Your task to perform on an android device: open app "Adobe Acrobat Reader" (install if not already installed), go to login, and select forgot password Image 0: 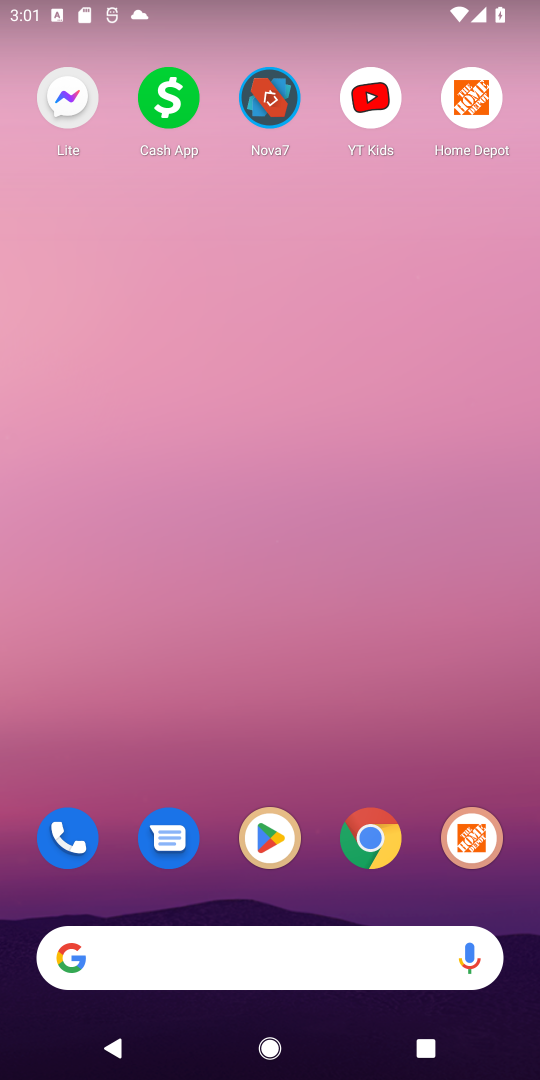
Step 0: click (255, 834)
Your task to perform on an android device: open app "Adobe Acrobat Reader" (install if not already installed), go to login, and select forgot password Image 1: 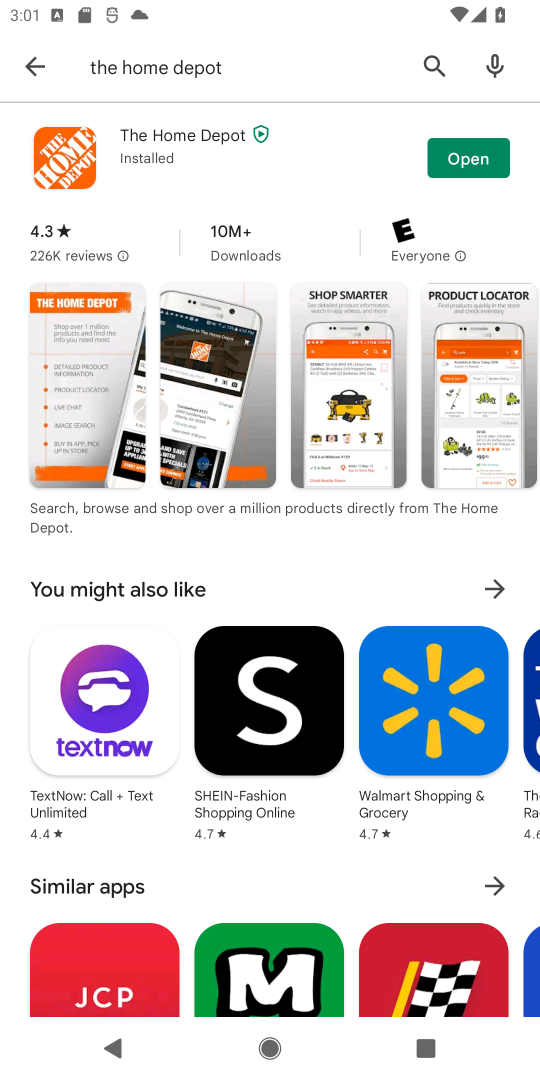
Step 1: click (420, 67)
Your task to perform on an android device: open app "Adobe Acrobat Reader" (install if not already installed), go to login, and select forgot password Image 2: 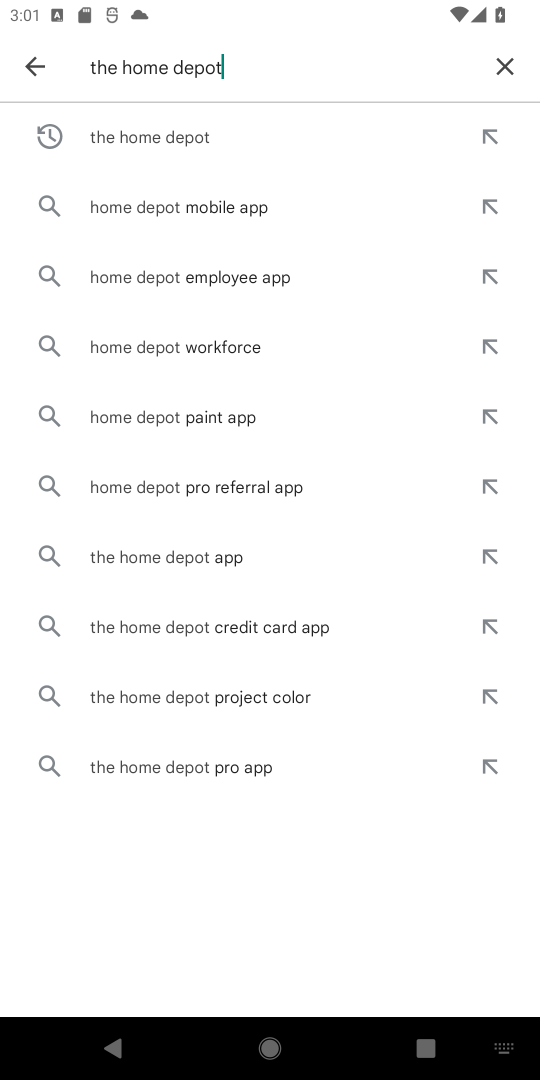
Step 2: click (494, 58)
Your task to perform on an android device: open app "Adobe Acrobat Reader" (install if not already installed), go to login, and select forgot password Image 3: 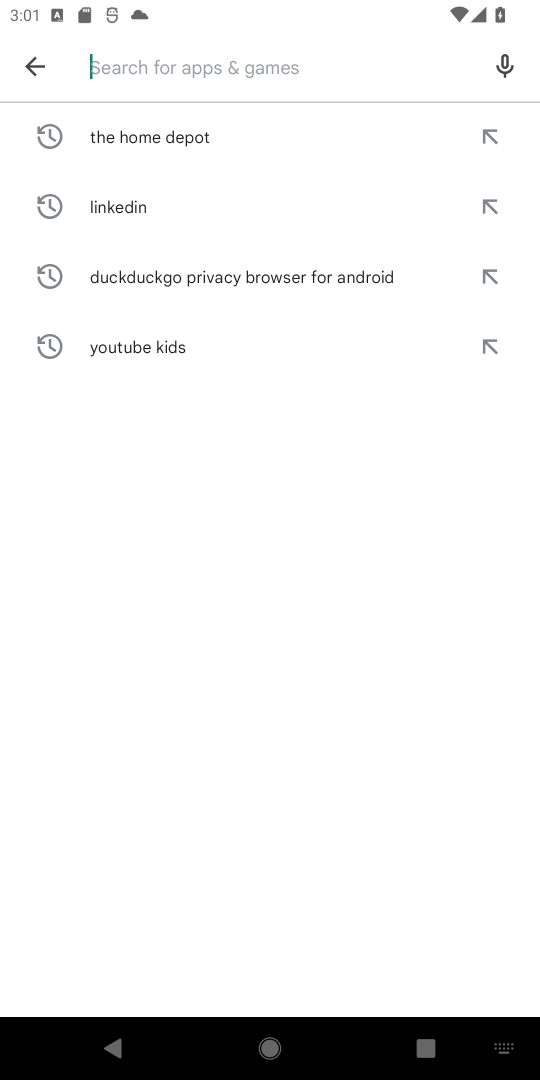
Step 3: type "Adobe Acrobat Reader"
Your task to perform on an android device: open app "Adobe Acrobat Reader" (install if not already installed), go to login, and select forgot password Image 4: 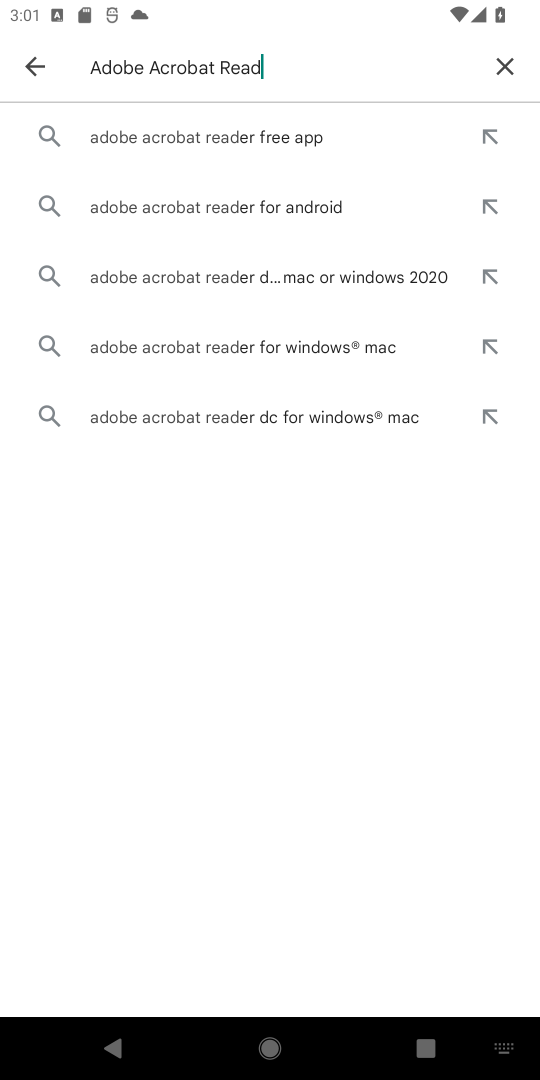
Step 4: type ""
Your task to perform on an android device: open app "Adobe Acrobat Reader" (install if not already installed), go to login, and select forgot password Image 5: 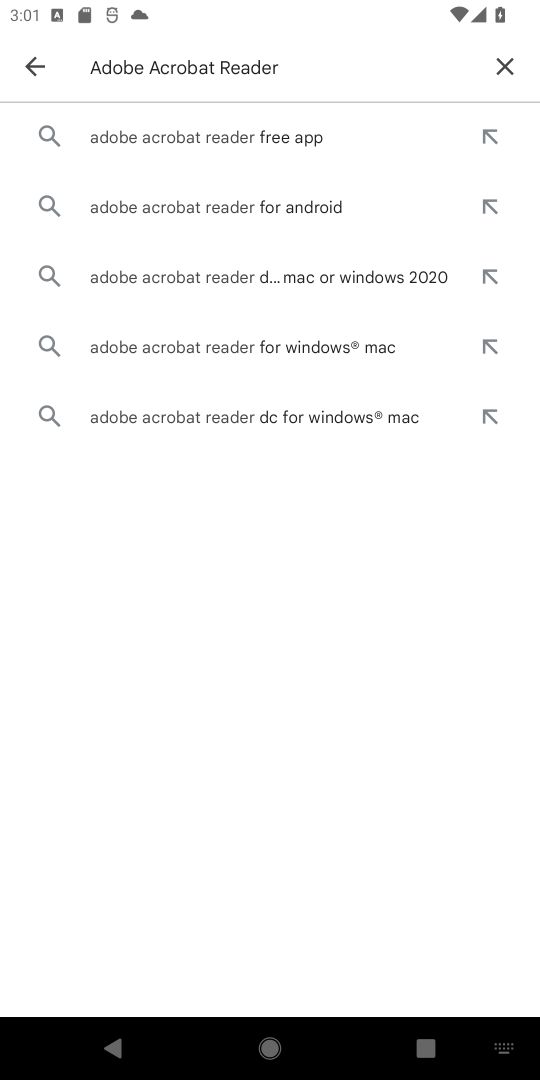
Step 5: click (231, 149)
Your task to perform on an android device: open app "Adobe Acrobat Reader" (install if not already installed), go to login, and select forgot password Image 6: 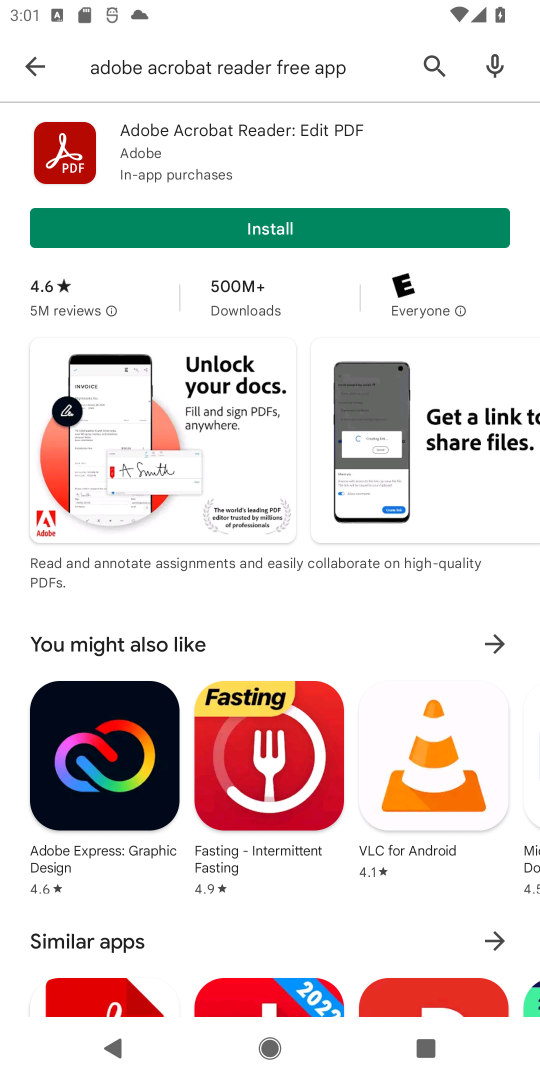
Step 6: click (248, 230)
Your task to perform on an android device: open app "Adobe Acrobat Reader" (install if not already installed), go to login, and select forgot password Image 7: 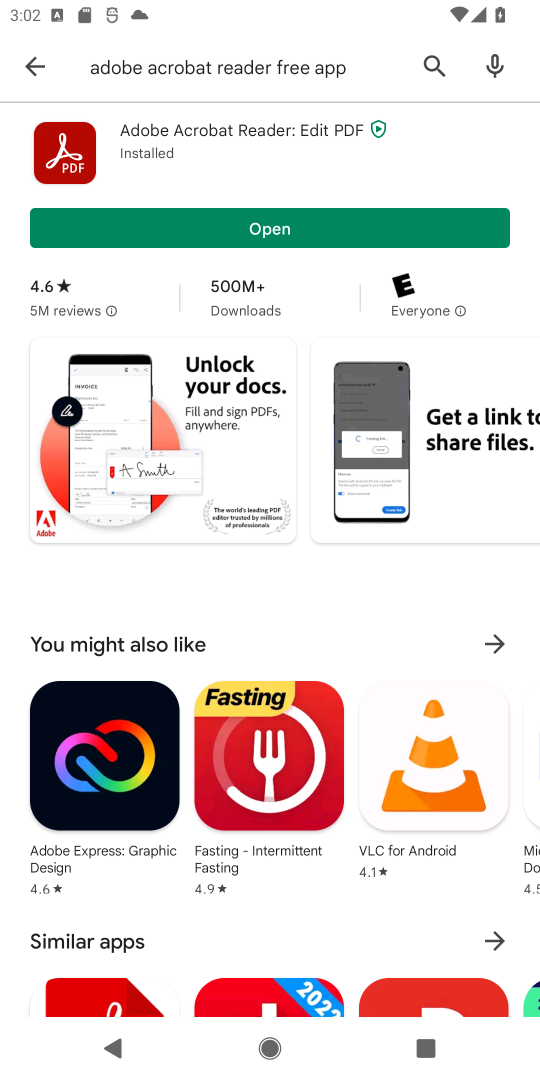
Step 7: click (245, 234)
Your task to perform on an android device: open app "Adobe Acrobat Reader" (install if not already installed), go to login, and select forgot password Image 8: 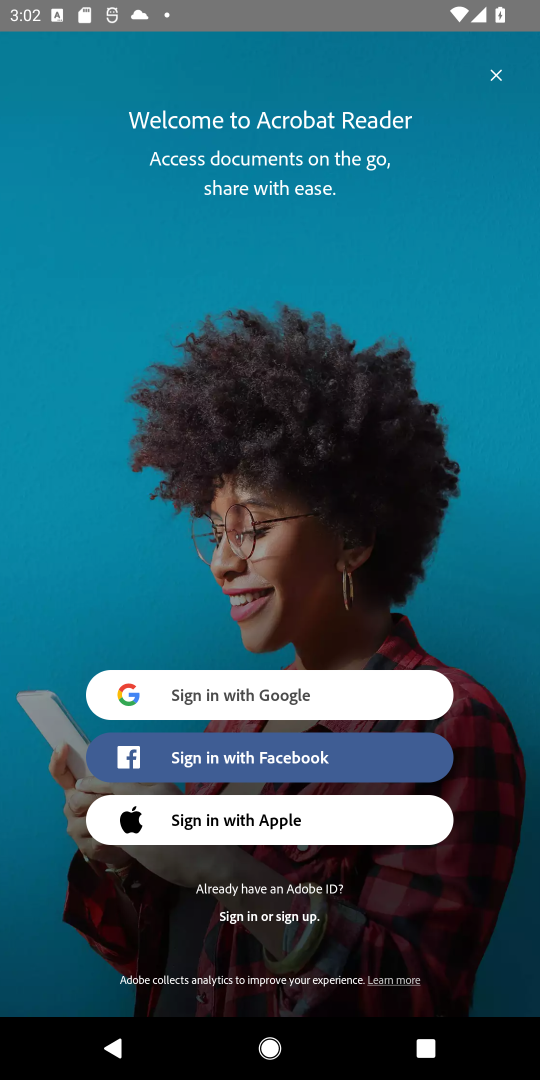
Step 8: click (234, 916)
Your task to perform on an android device: open app "Adobe Acrobat Reader" (install if not already installed), go to login, and select forgot password Image 9: 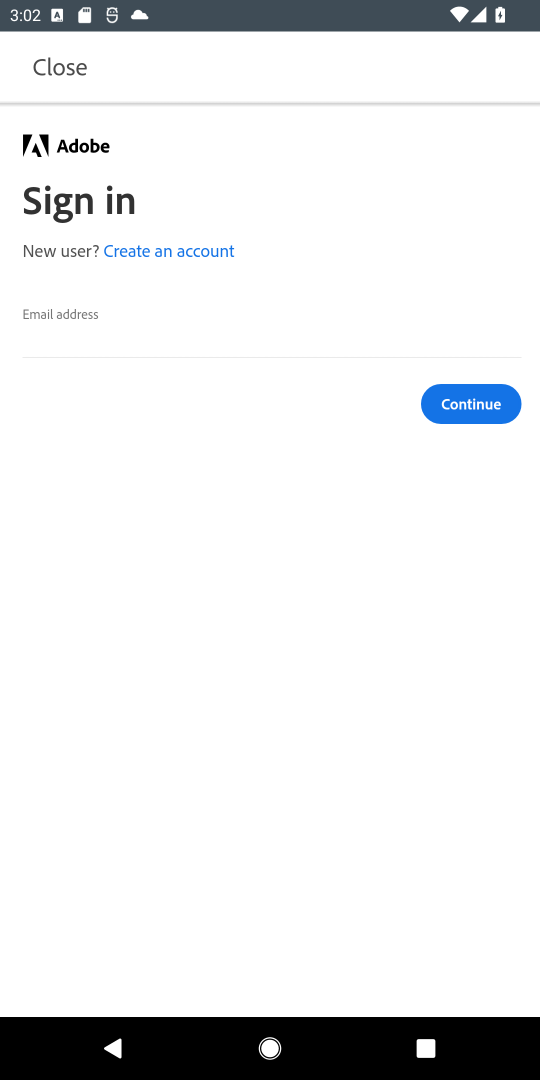
Step 9: task complete